Your task to perform on an android device: Open Google Maps Image 0: 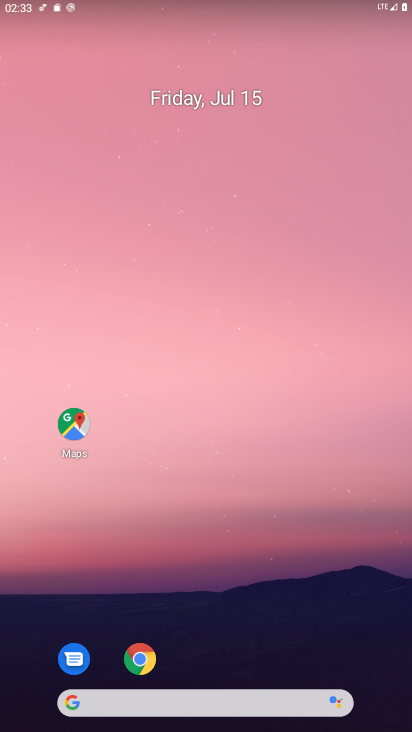
Step 0: drag from (195, 659) to (242, 288)
Your task to perform on an android device: Open Google Maps Image 1: 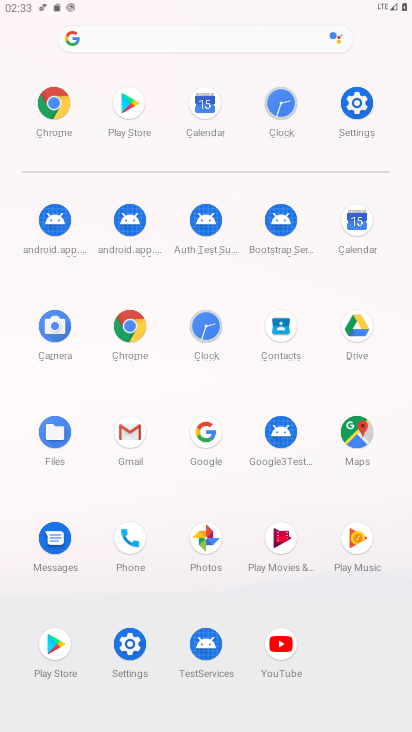
Step 1: click (359, 424)
Your task to perform on an android device: Open Google Maps Image 2: 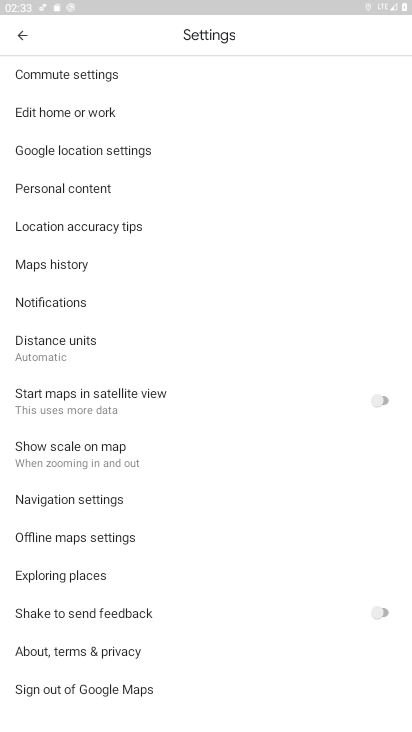
Step 2: press home button
Your task to perform on an android device: Open Google Maps Image 3: 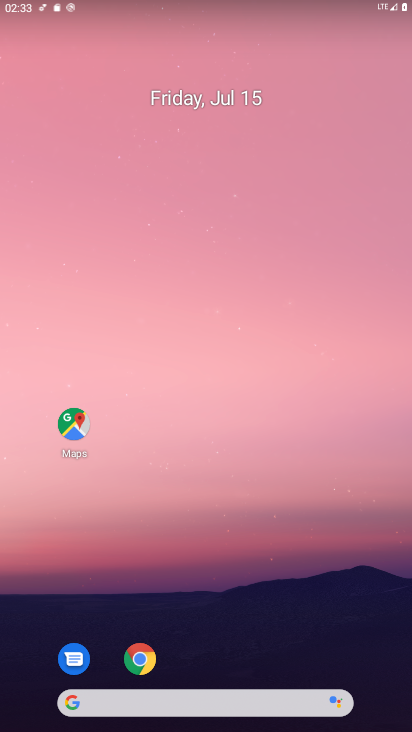
Step 3: click (76, 423)
Your task to perform on an android device: Open Google Maps Image 4: 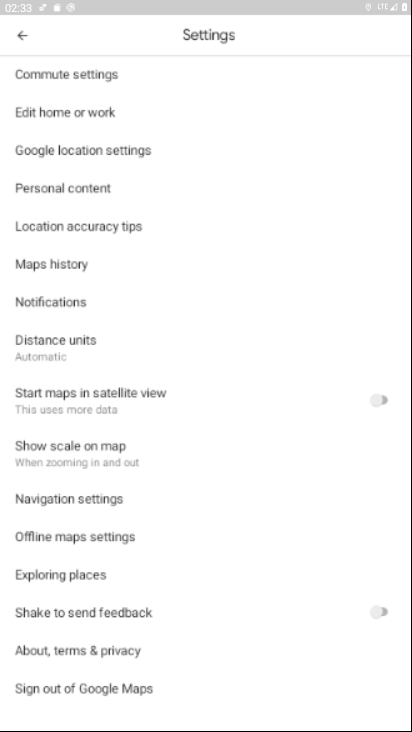
Step 4: click (14, 46)
Your task to perform on an android device: Open Google Maps Image 5: 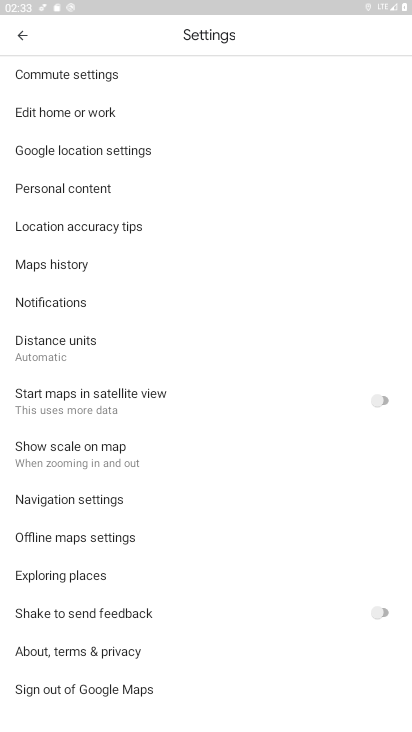
Step 5: click (29, 30)
Your task to perform on an android device: Open Google Maps Image 6: 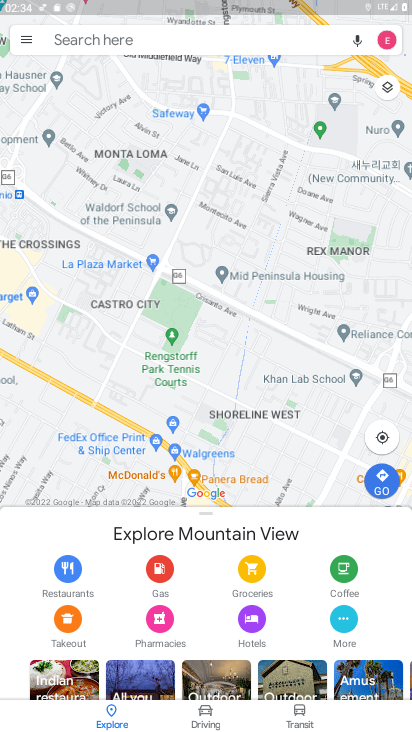
Step 6: task complete